Your task to perform on an android device: add a contact Image 0: 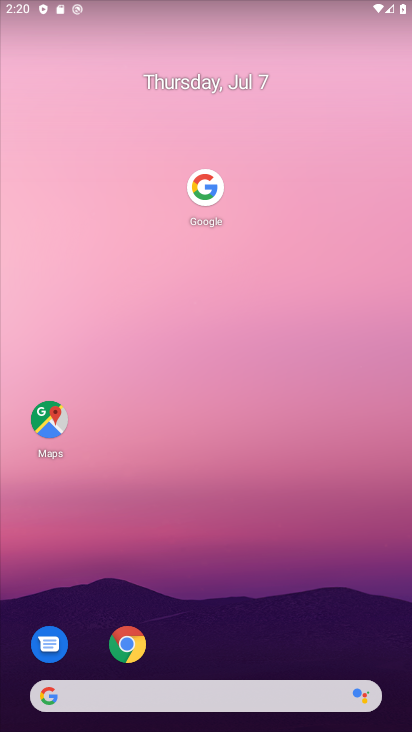
Step 0: drag from (107, 692) to (278, 1)
Your task to perform on an android device: add a contact Image 1: 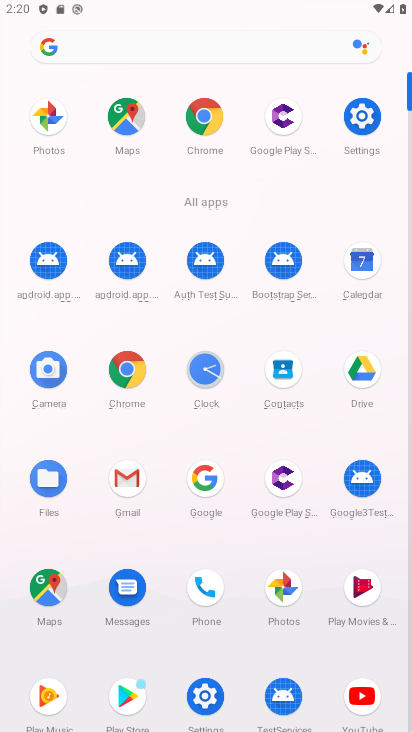
Step 1: click (282, 380)
Your task to perform on an android device: add a contact Image 2: 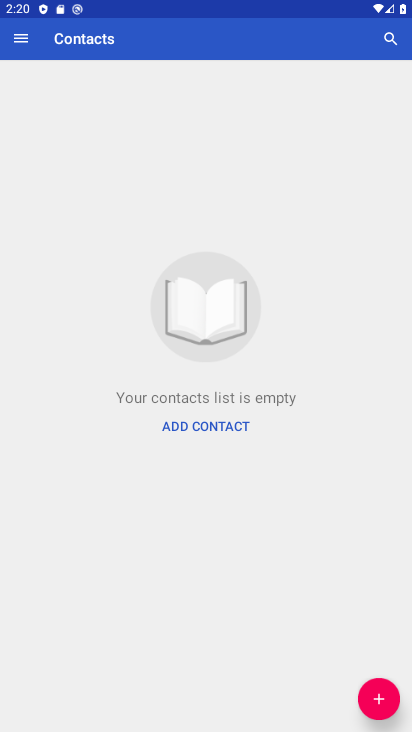
Step 2: click (381, 710)
Your task to perform on an android device: add a contact Image 3: 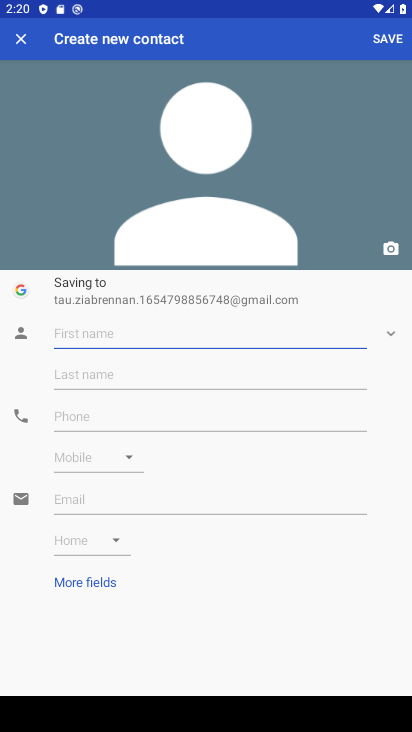
Step 3: type "aadda"
Your task to perform on an android device: add a contact Image 4: 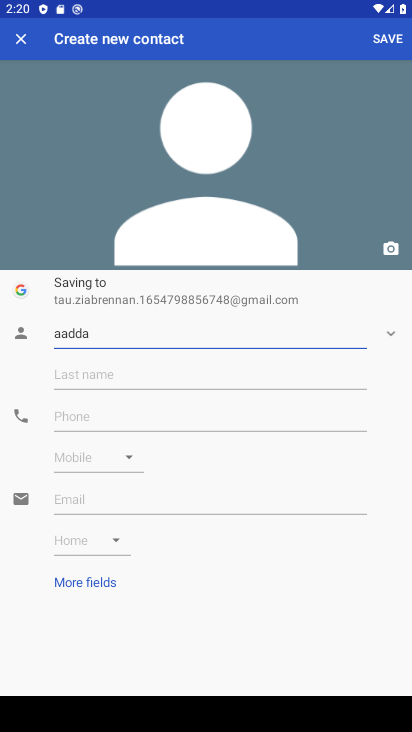
Step 4: click (81, 413)
Your task to perform on an android device: add a contact Image 5: 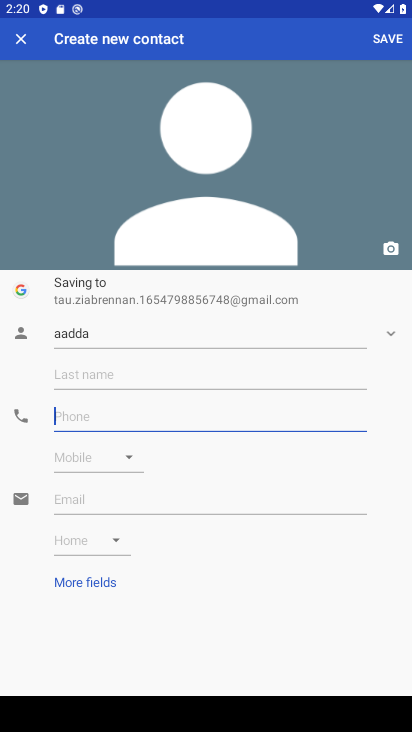
Step 5: type "2663547483"
Your task to perform on an android device: add a contact Image 6: 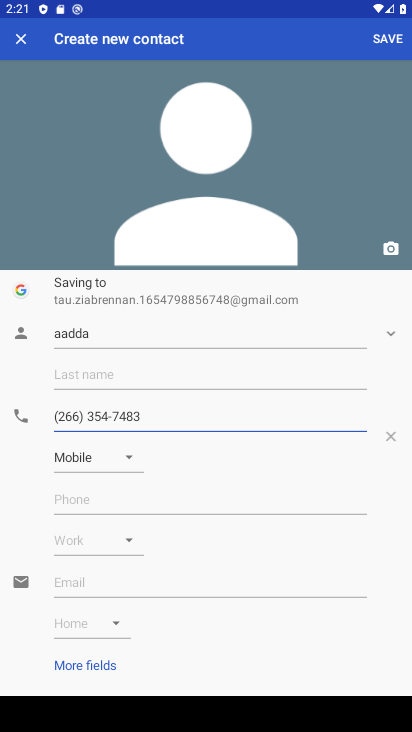
Step 6: click (396, 39)
Your task to perform on an android device: add a contact Image 7: 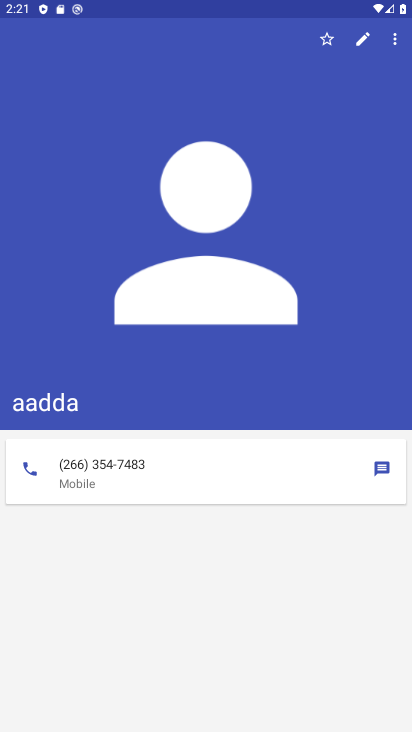
Step 7: task complete